Your task to perform on an android device: read, delete, or share a saved page in the chrome app Image 0: 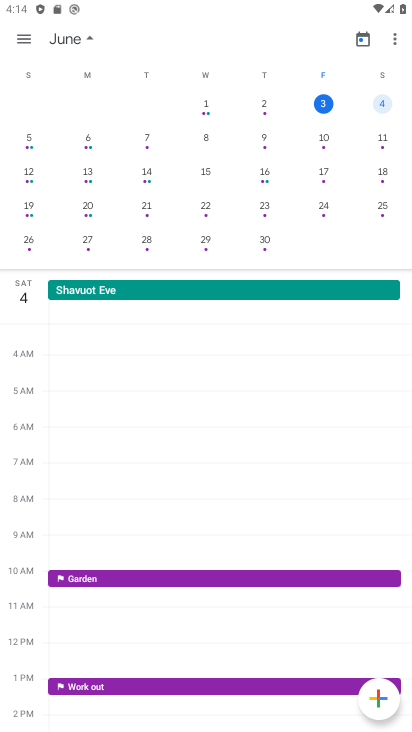
Step 0: press home button
Your task to perform on an android device: read, delete, or share a saved page in the chrome app Image 1: 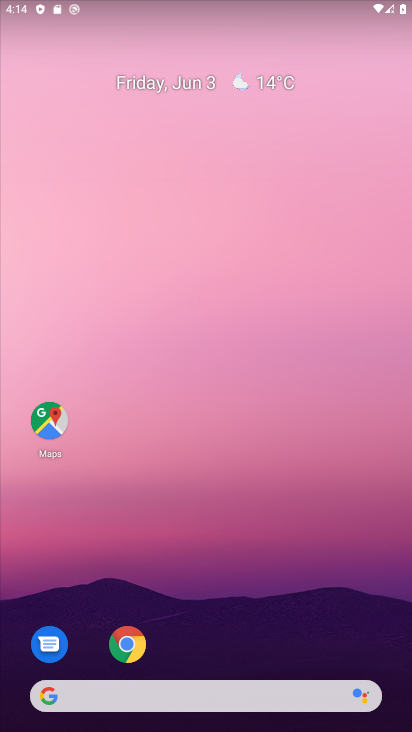
Step 1: click (125, 649)
Your task to perform on an android device: read, delete, or share a saved page in the chrome app Image 2: 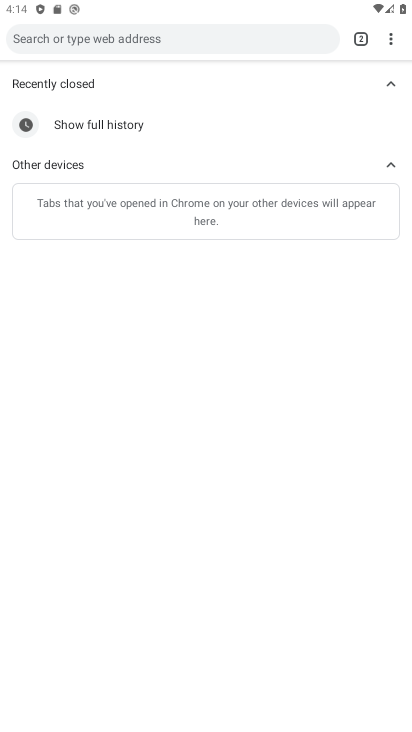
Step 2: click (403, 51)
Your task to perform on an android device: read, delete, or share a saved page in the chrome app Image 3: 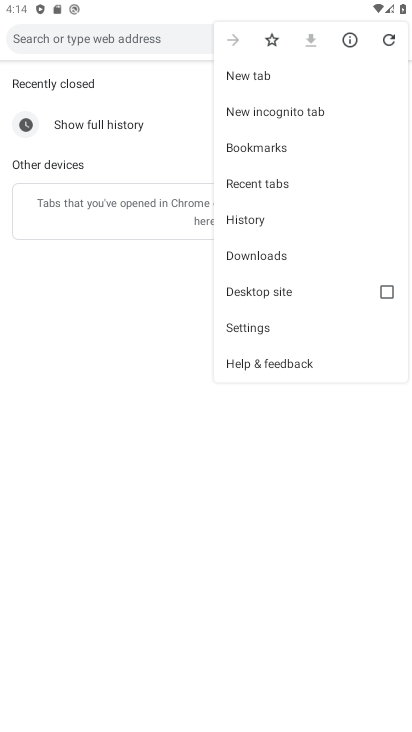
Step 3: click (247, 265)
Your task to perform on an android device: read, delete, or share a saved page in the chrome app Image 4: 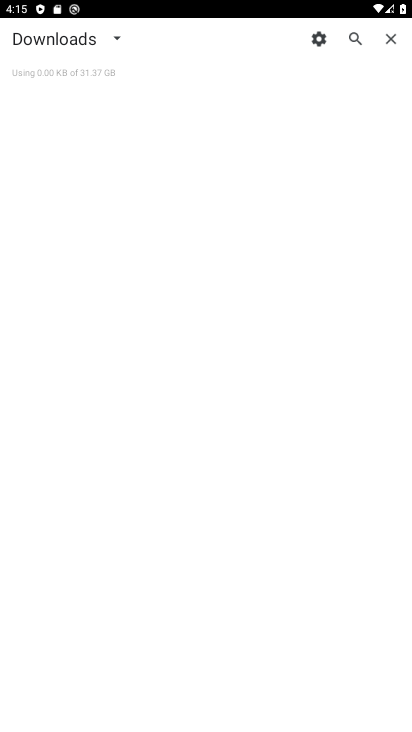
Step 4: task complete